Your task to perform on an android device: Open Reddit.com Image 0: 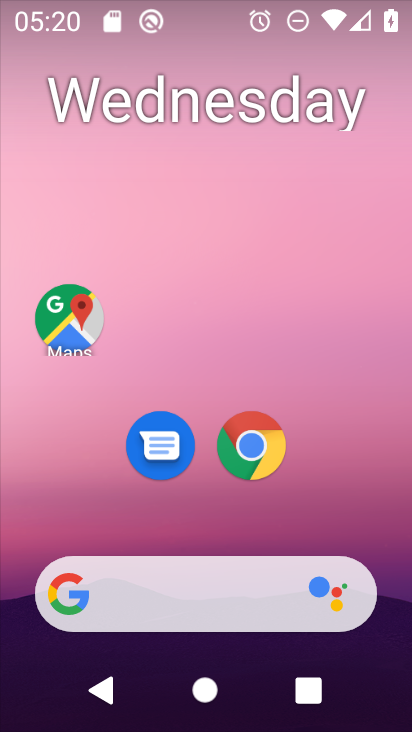
Step 0: click (201, 593)
Your task to perform on an android device: Open Reddit.com Image 1: 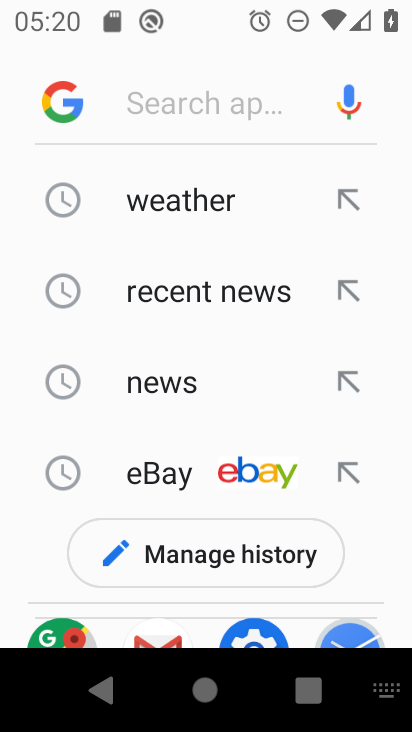
Step 1: type "reddit.com"
Your task to perform on an android device: Open Reddit.com Image 2: 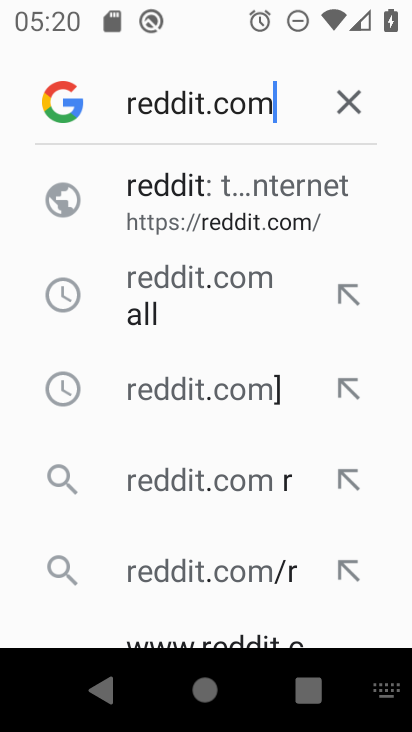
Step 2: click (169, 197)
Your task to perform on an android device: Open Reddit.com Image 3: 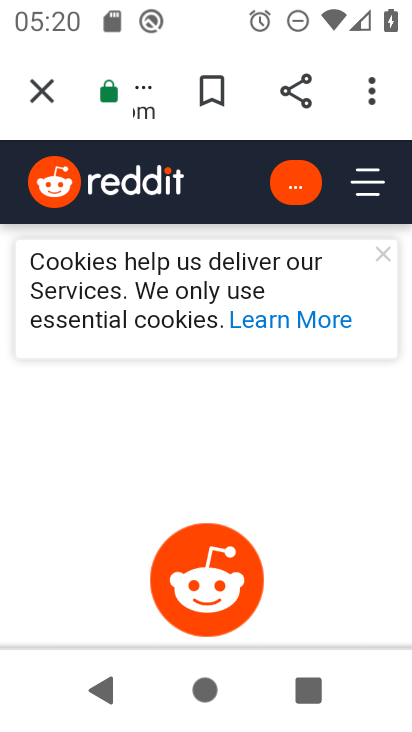
Step 3: task complete